Your task to perform on an android device: Go to Maps Image 0: 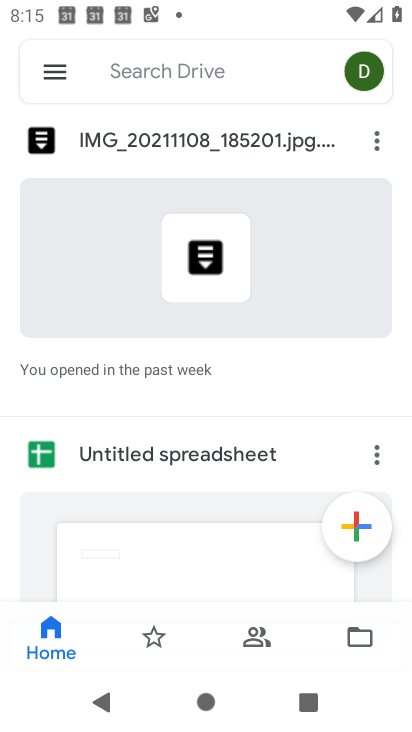
Step 0: press home button
Your task to perform on an android device: Go to Maps Image 1: 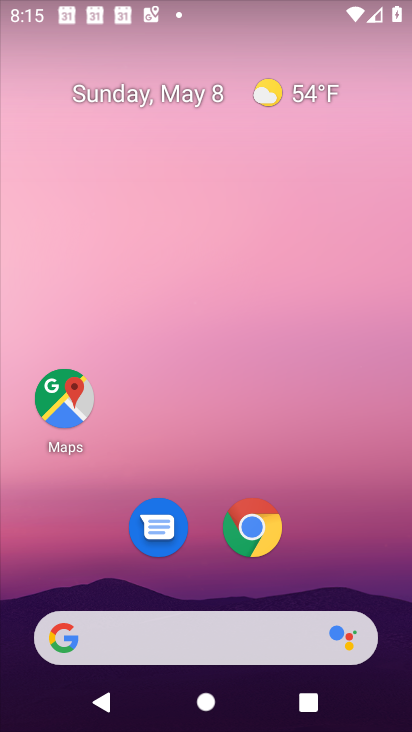
Step 1: drag from (331, 583) to (243, 111)
Your task to perform on an android device: Go to Maps Image 2: 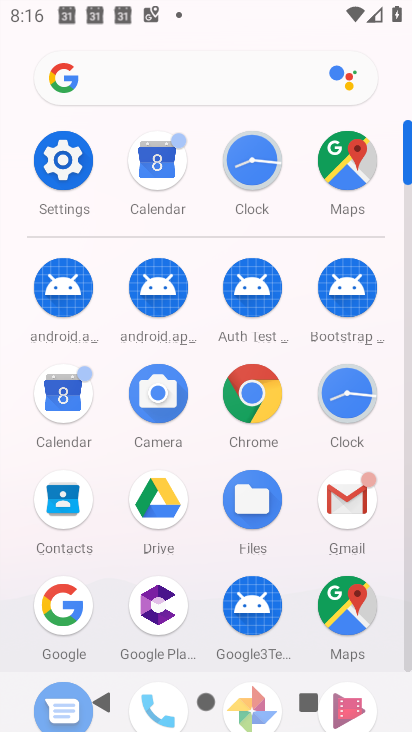
Step 2: click (340, 159)
Your task to perform on an android device: Go to Maps Image 3: 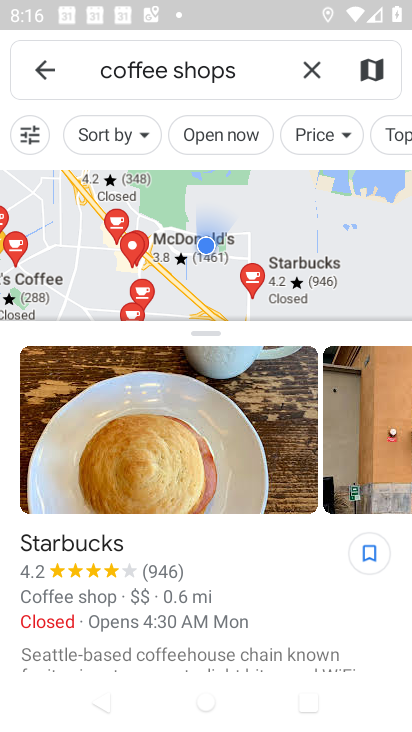
Step 3: click (40, 79)
Your task to perform on an android device: Go to Maps Image 4: 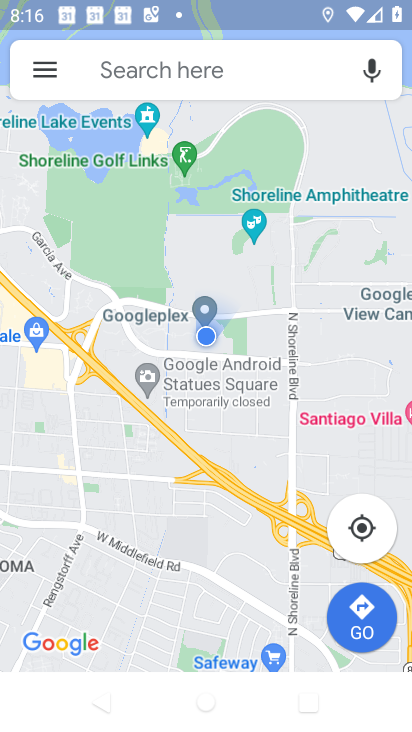
Step 4: task complete